Your task to perform on an android device: read, delete, or share a saved page in the chrome app Image 0: 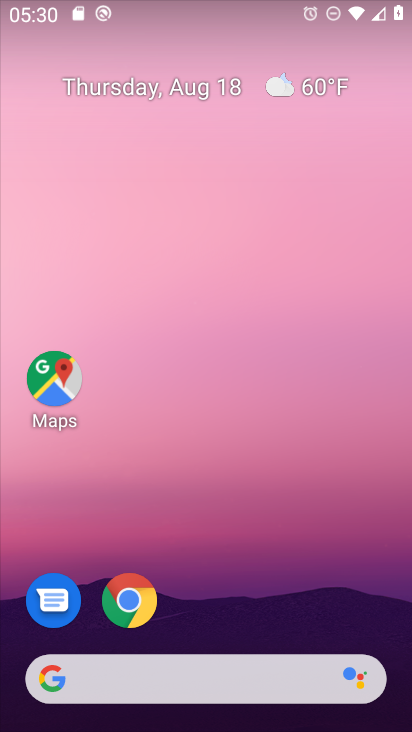
Step 0: click (133, 605)
Your task to perform on an android device: read, delete, or share a saved page in the chrome app Image 1: 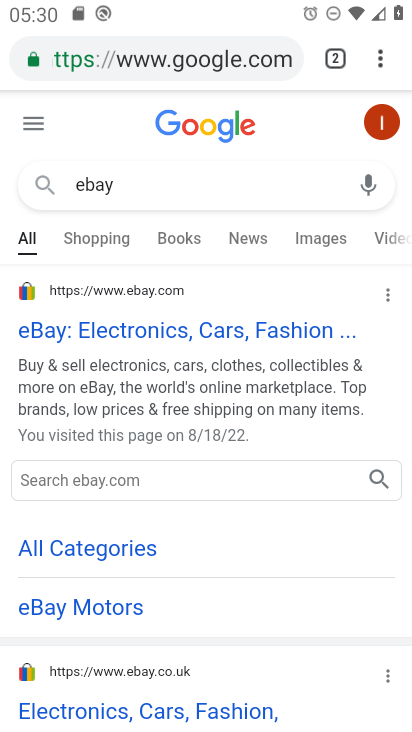
Step 1: drag from (380, 53) to (177, 387)
Your task to perform on an android device: read, delete, or share a saved page in the chrome app Image 2: 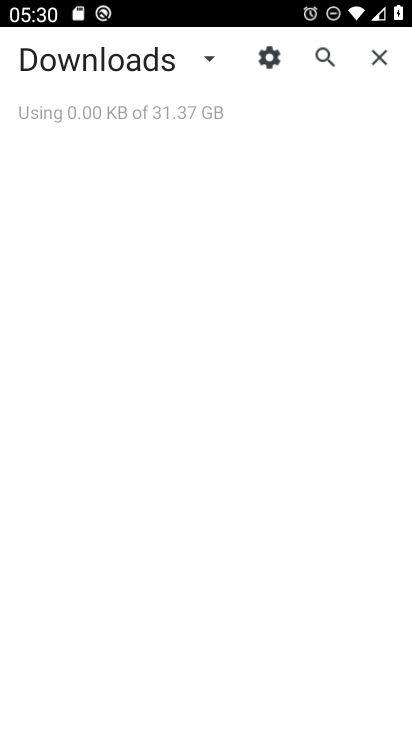
Step 2: click (200, 62)
Your task to perform on an android device: read, delete, or share a saved page in the chrome app Image 3: 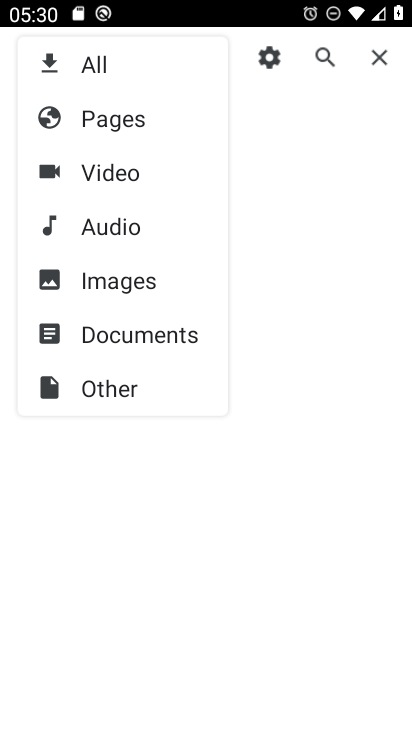
Step 3: click (114, 128)
Your task to perform on an android device: read, delete, or share a saved page in the chrome app Image 4: 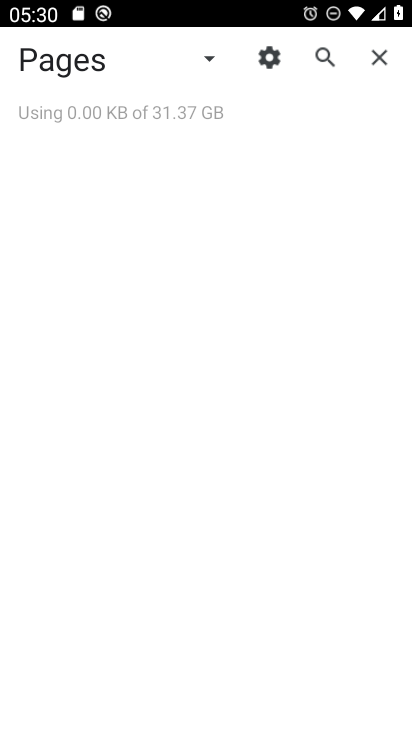
Step 4: task complete